Your task to perform on an android device: What's on my calendar today? Image 0: 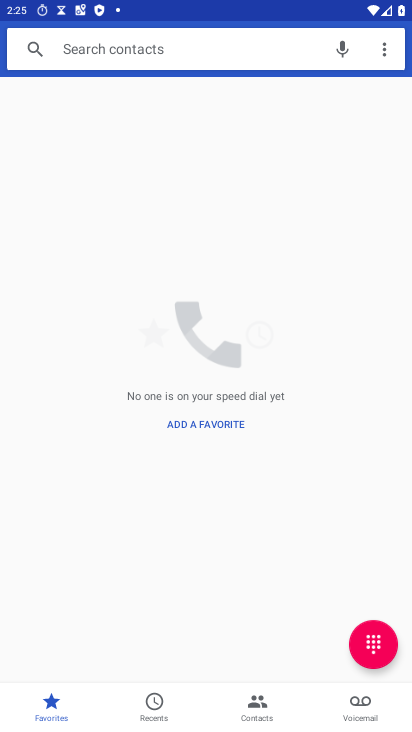
Step 0: press home button
Your task to perform on an android device: What's on my calendar today? Image 1: 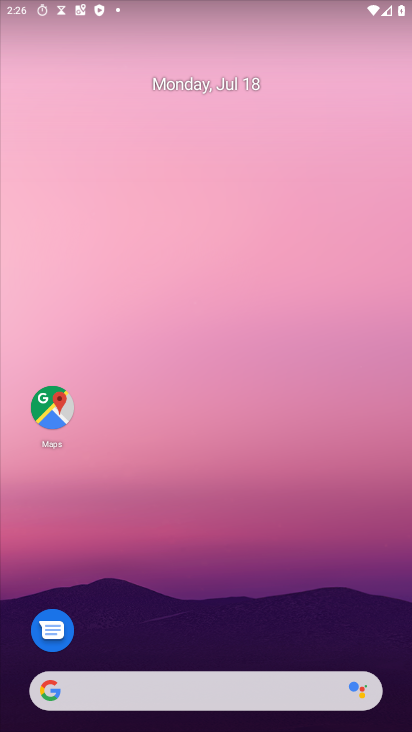
Step 1: drag from (241, 336) to (252, 65)
Your task to perform on an android device: What's on my calendar today? Image 2: 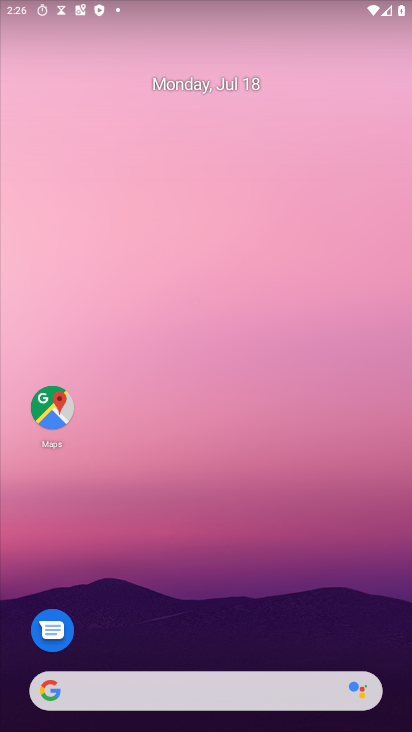
Step 2: drag from (159, 685) to (219, 22)
Your task to perform on an android device: What's on my calendar today? Image 3: 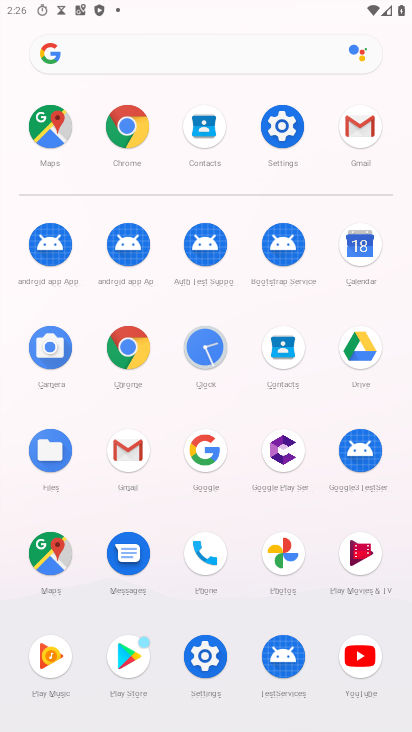
Step 3: click (366, 250)
Your task to perform on an android device: What's on my calendar today? Image 4: 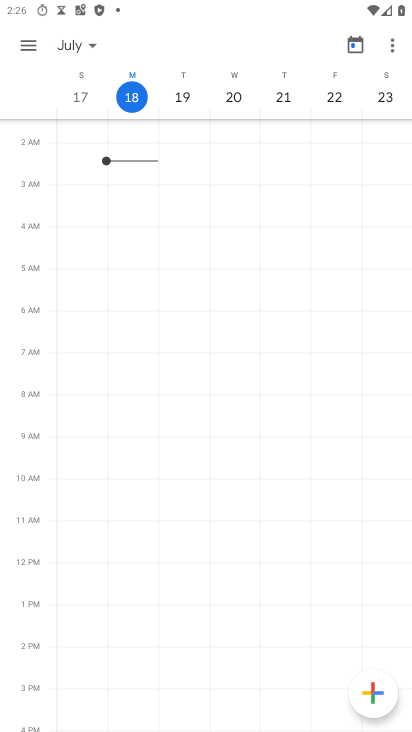
Step 4: click (90, 43)
Your task to perform on an android device: What's on my calendar today? Image 5: 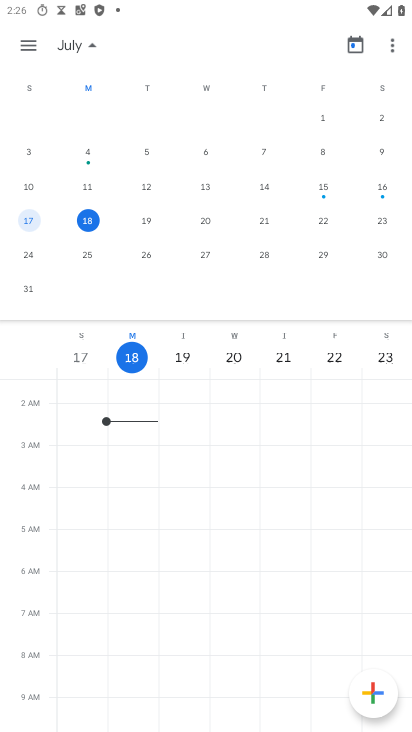
Step 5: click (84, 215)
Your task to perform on an android device: What's on my calendar today? Image 6: 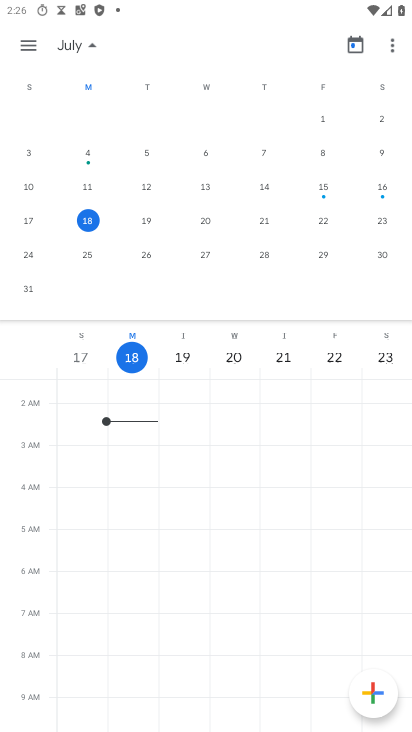
Step 6: task complete